Your task to perform on an android device: turn off translation in the chrome app Image 0: 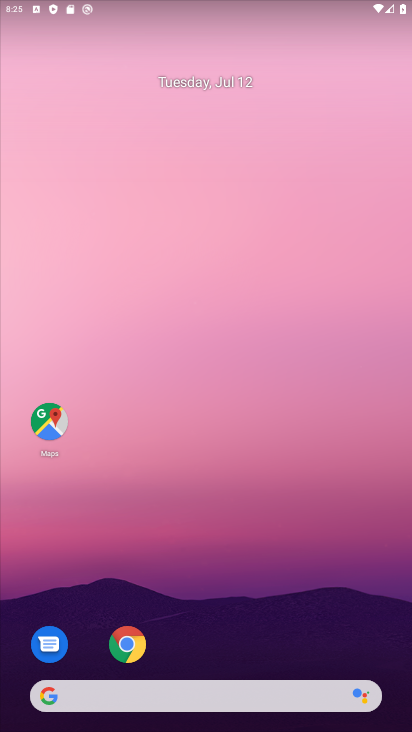
Step 0: click (125, 641)
Your task to perform on an android device: turn off translation in the chrome app Image 1: 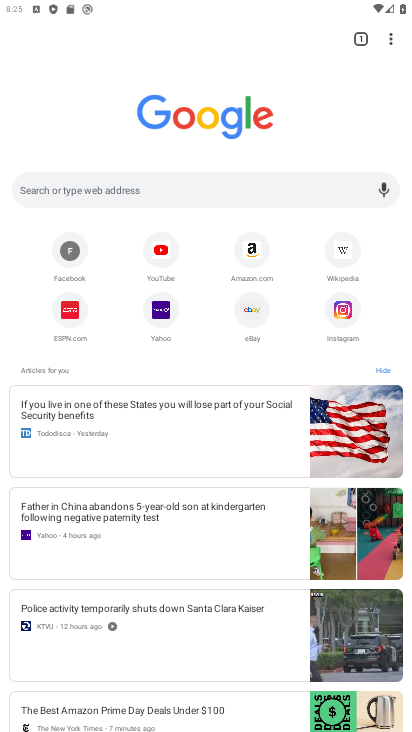
Step 1: click (390, 44)
Your task to perform on an android device: turn off translation in the chrome app Image 2: 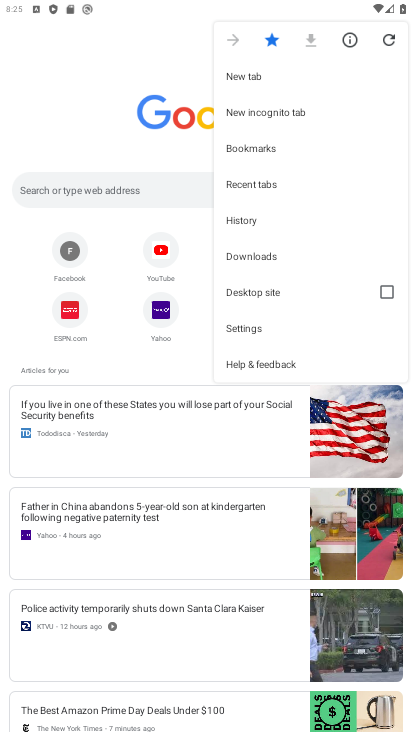
Step 2: click (246, 324)
Your task to perform on an android device: turn off translation in the chrome app Image 3: 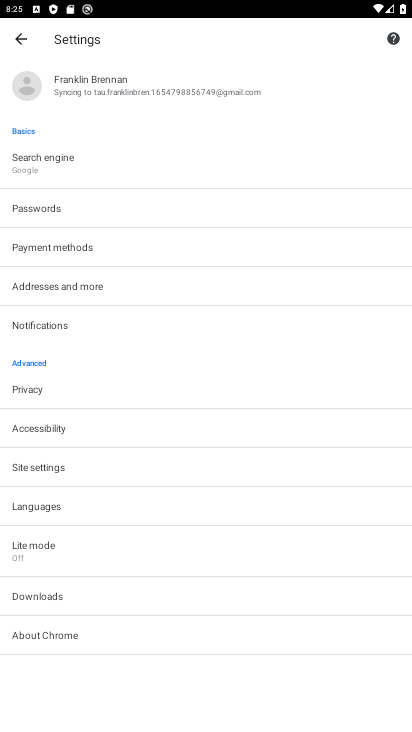
Step 3: click (34, 505)
Your task to perform on an android device: turn off translation in the chrome app Image 4: 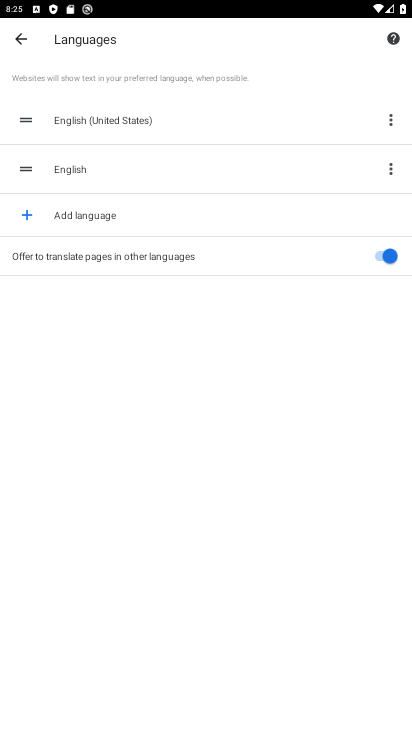
Step 4: click (377, 256)
Your task to perform on an android device: turn off translation in the chrome app Image 5: 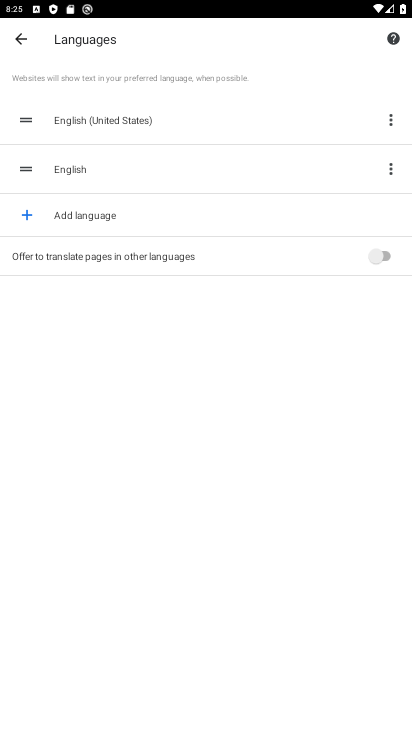
Step 5: task complete